Your task to perform on an android device: search for starred emails in the gmail app Image 0: 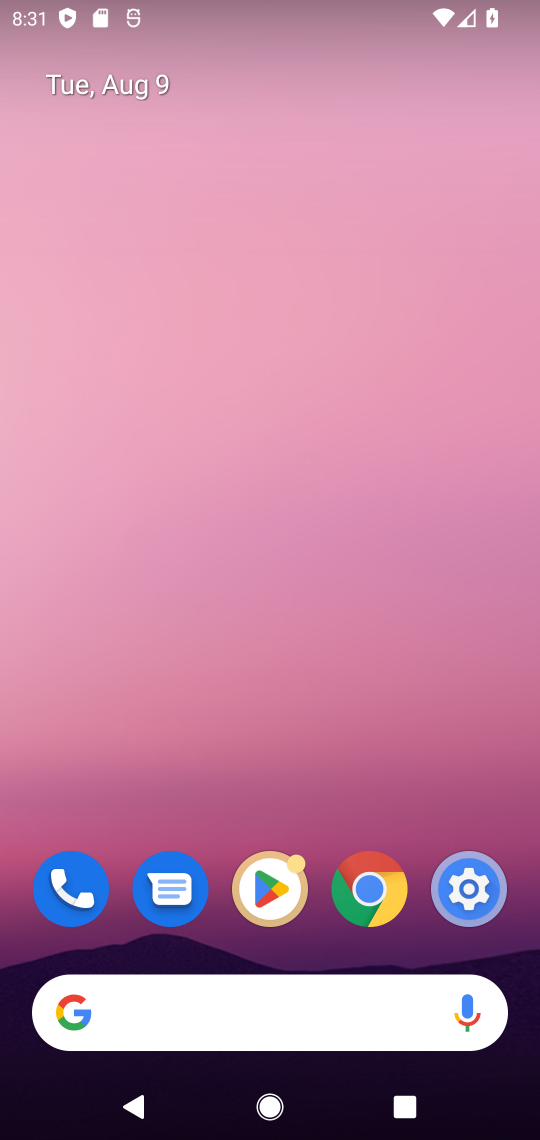
Step 0: drag from (262, 1000) to (285, 25)
Your task to perform on an android device: search for starred emails in the gmail app Image 1: 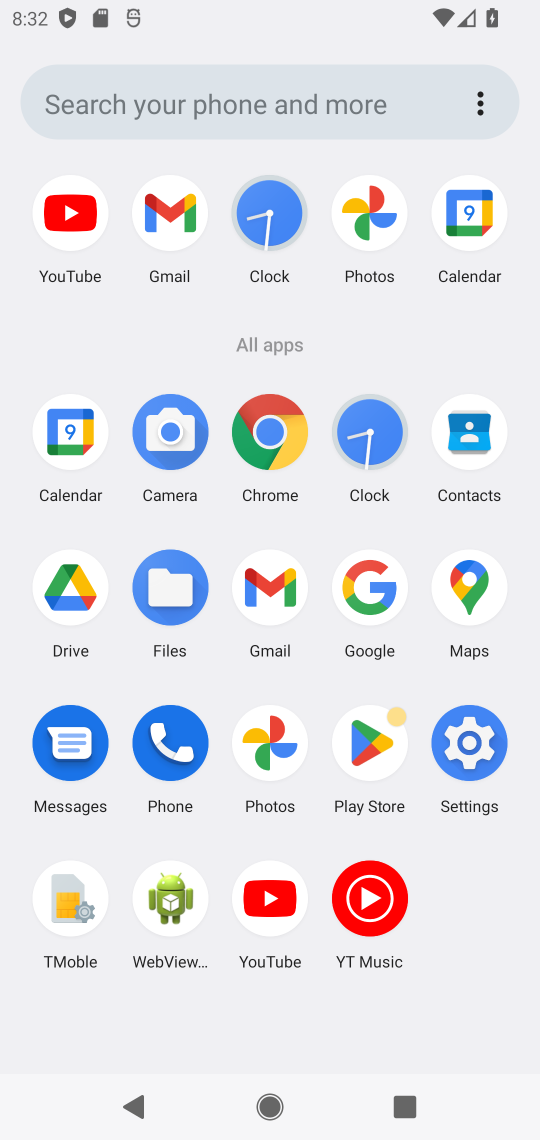
Step 1: click (163, 220)
Your task to perform on an android device: search for starred emails in the gmail app Image 2: 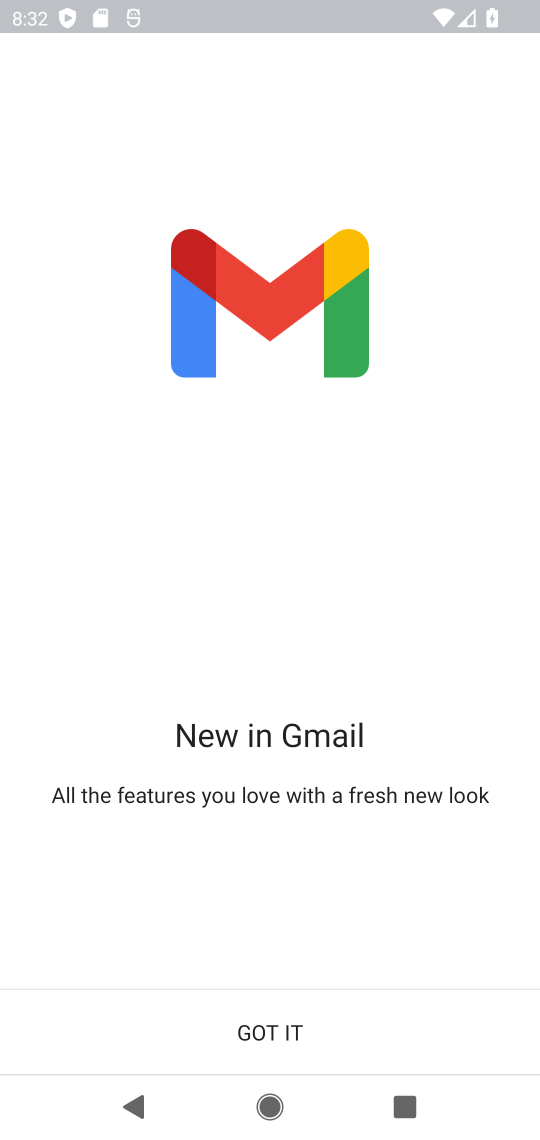
Step 2: click (276, 1023)
Your task to perform on an android device: search for starred emails in the gmail app Image 3: 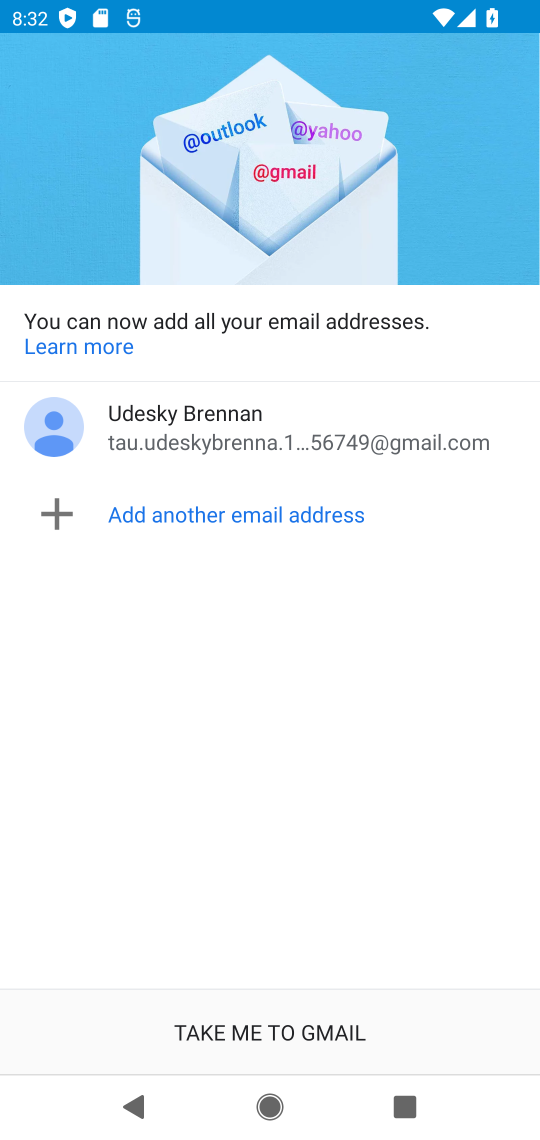
Step 3: click (283, 1034)
Your task to perform on an android device: search for starred emails in the gmail app Image 4: 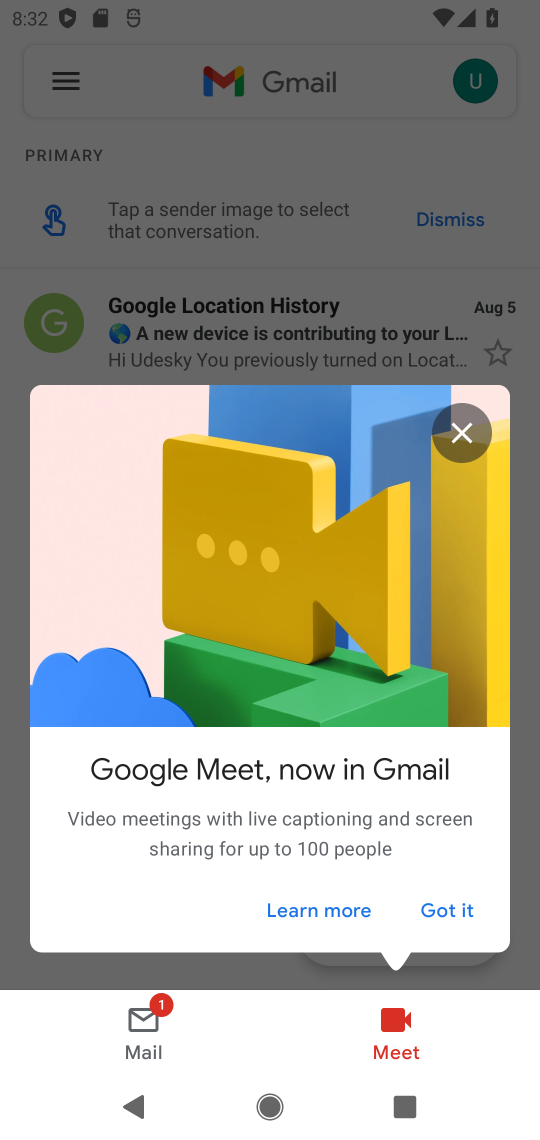
Step 4: click (465, 426)
Your task to perform on an android device: search for starred emails in the gmail app Image 5: 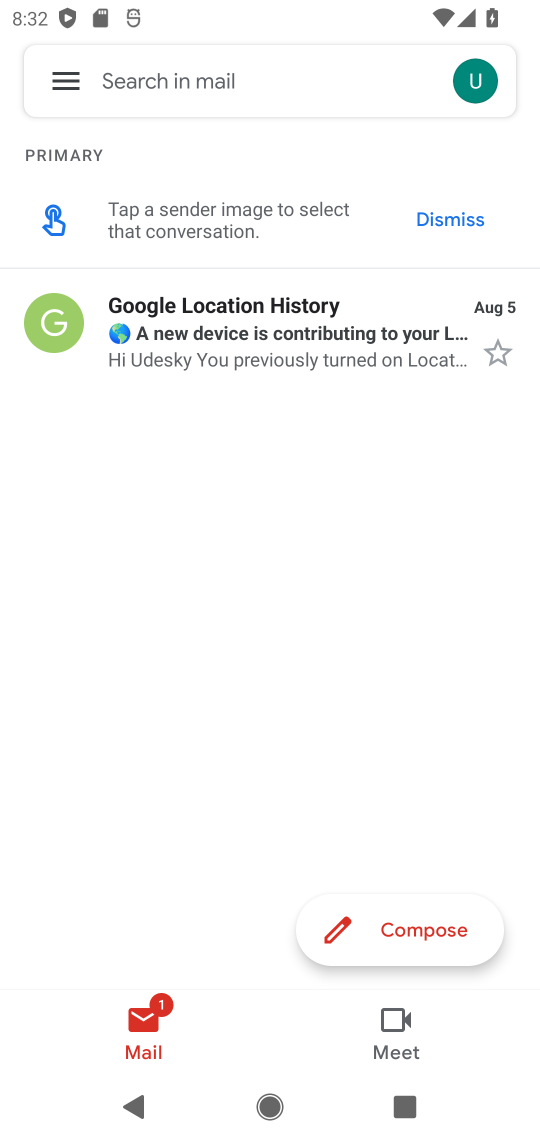
Step 5: click (48, 80)
Your task to perform on an android device: search for starred emails in the gmail app Image 6: 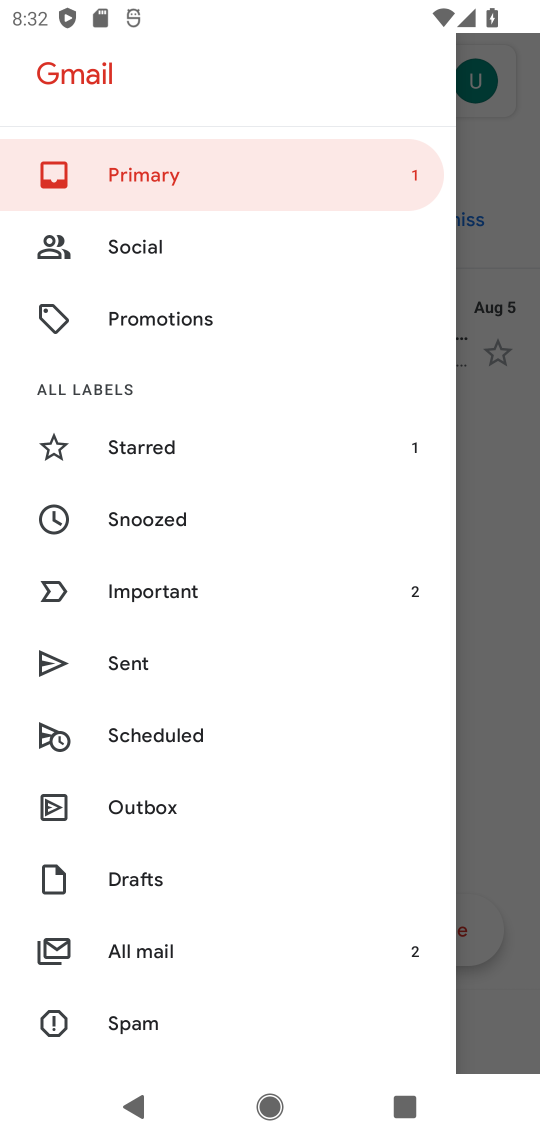
Step 6: click (144, 451)
Your task to perform on an android device: search for starred emails in the gmail app Image 7: 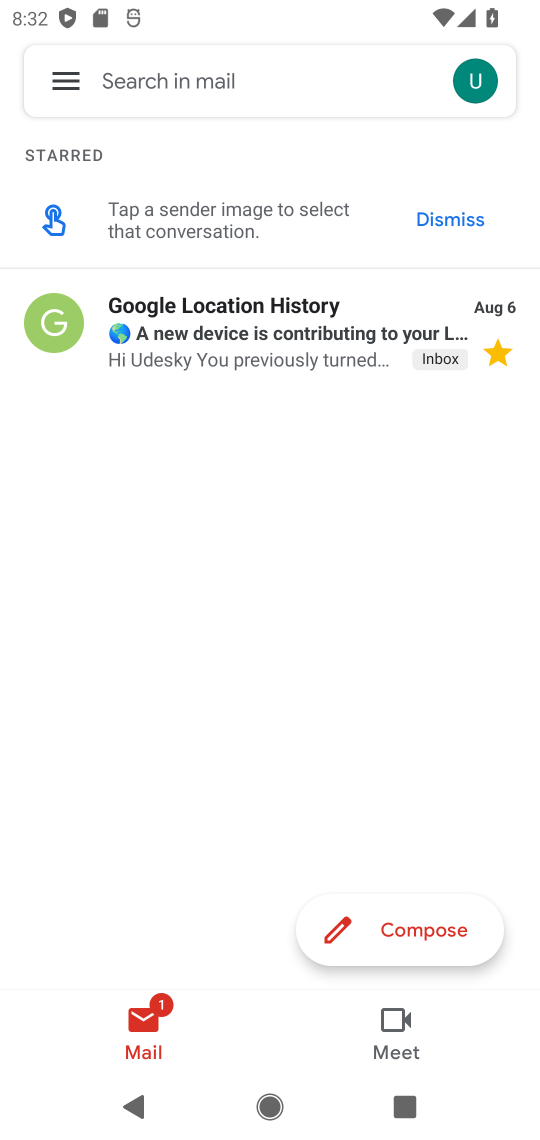
Step 7: task complete